Your task to perform on an android device: find snoozed emails in the gmail app Image 0: 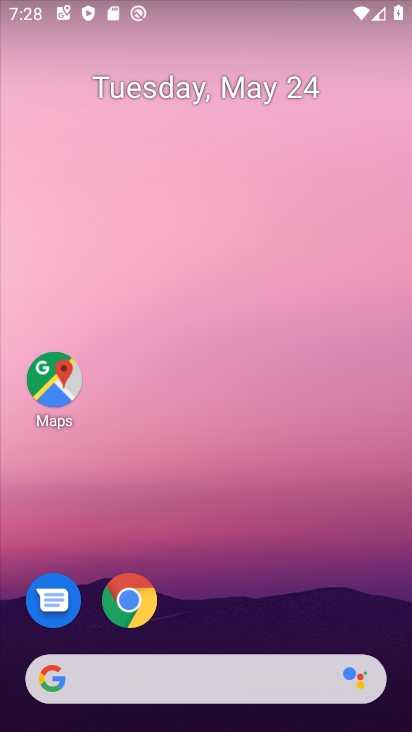
Step 0: drag from (294, 595) to (301, 10)
Your task to perform on an android device: find snoozed emails in the gmail app Image 1: 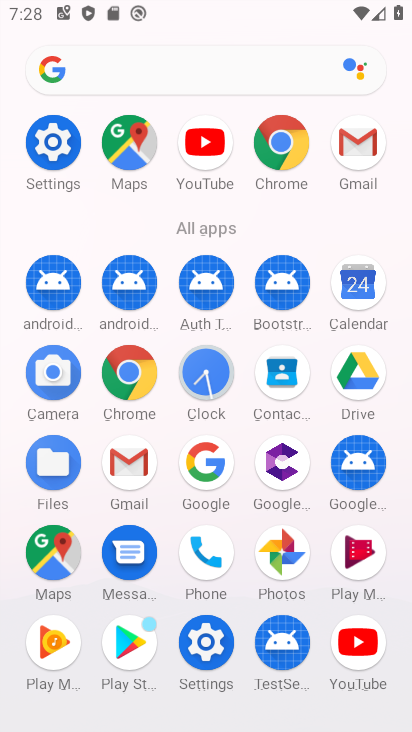
Step 1: click (362, 149)
Your task to perform on an android device: find snoozed emails in the gmail app Image 2: 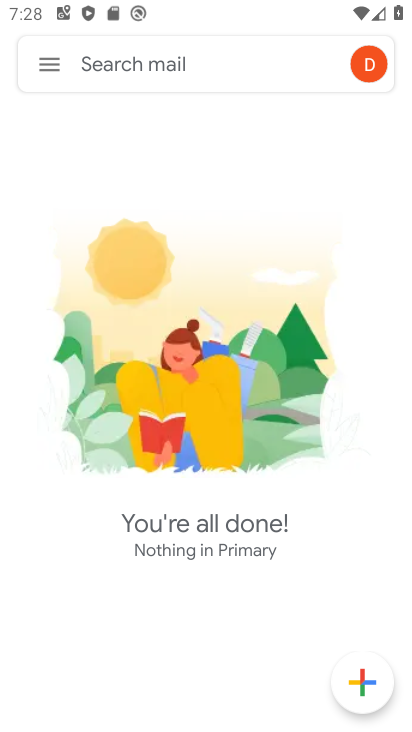
Step 2: click (50, 63)
Your task to perform on an android device: find snoozed emails in the gmail app Image 3: 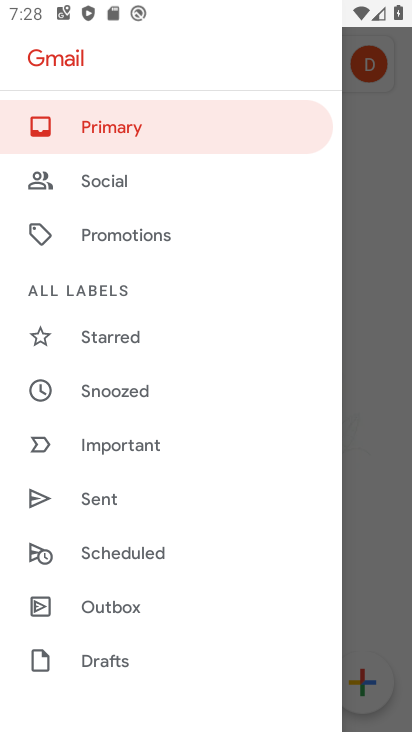
Step 3: click (107, 383)
Your task to perform on an android device: find snoozed emails in the gmail app Image 4: 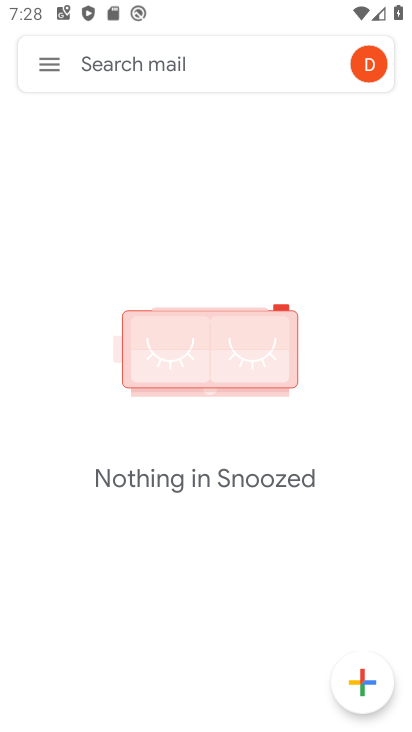
Step 4: task complete